Your task to perform on an android device: add a contact in the contacts app Image 0: 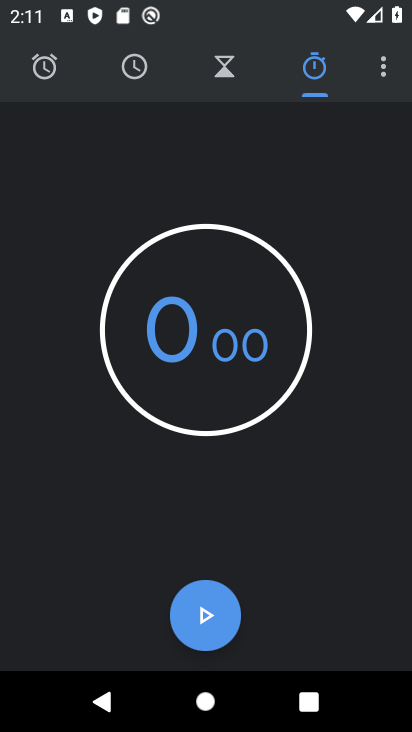
Step 0: press home button
Your task to perform on an android device: add a contact in the contacts app Image 1: 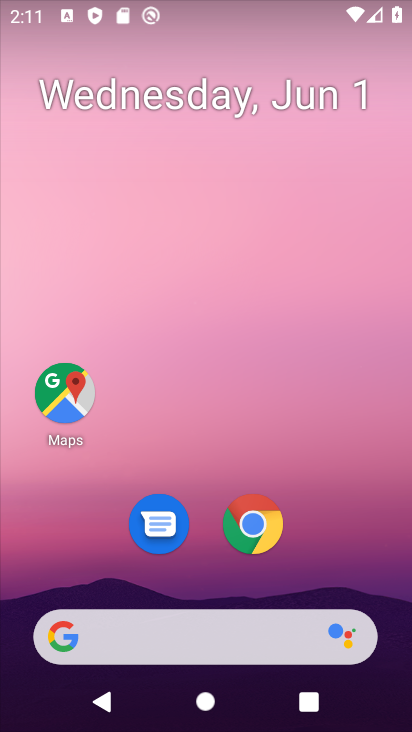
Step 1: drag from (349, 510) to (258, 15)
Your task to perform on an android device: add a contact in the contacts app Image 2: 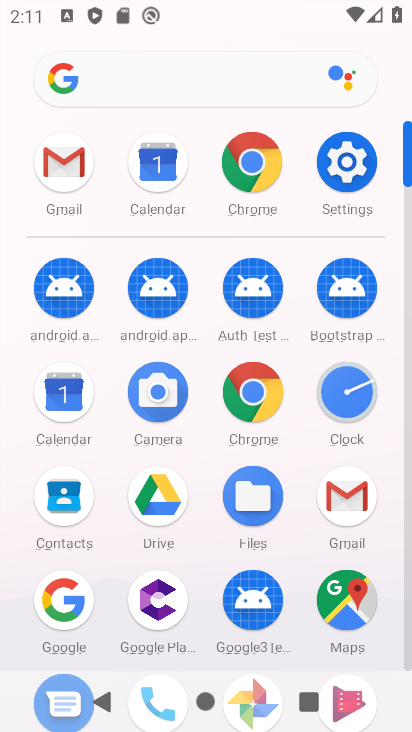
Step 2: click (72, 485)
Your task to perform on an android device: add a contact in the contacts app Image 3: 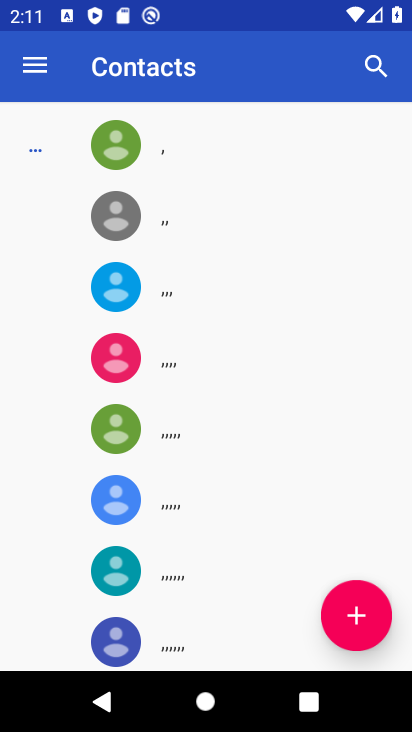
Step 3: click (354, 598)
Your task to perform on an android device: add a contact in the contacts app Image 4: 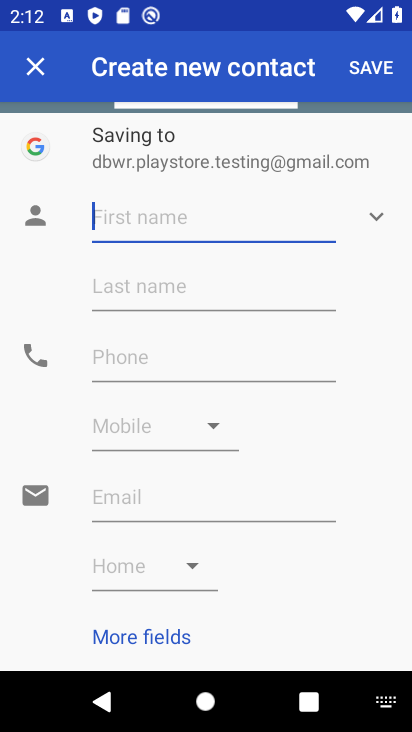
Step 4: type "Shrishti Narayan"
Your task to perform on an android device: add a contact in the contacts app Image 5: 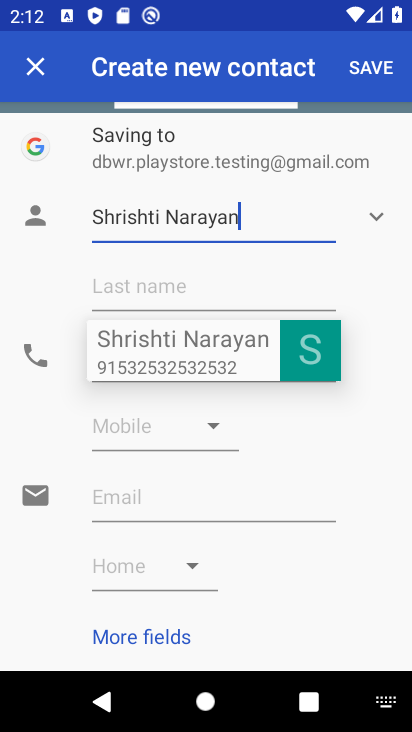
Step 5: click (185, 287)
Your task to perform on an android device: add a contact in the contacts app Image 6: 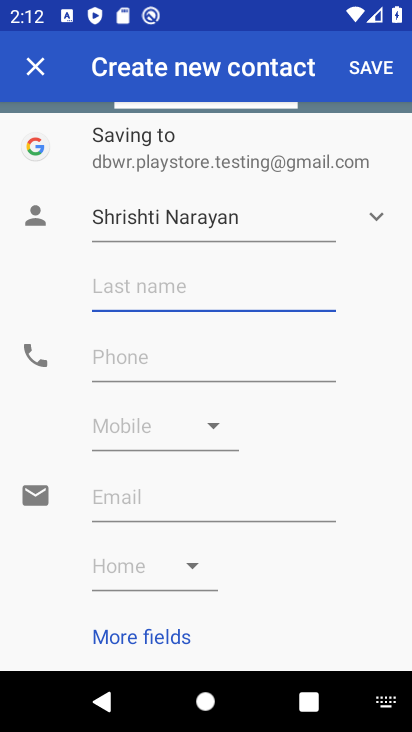
Step 6: type "Dwivedi"
Your task to perform on an android device: add a contact in the contacts app Image 7: 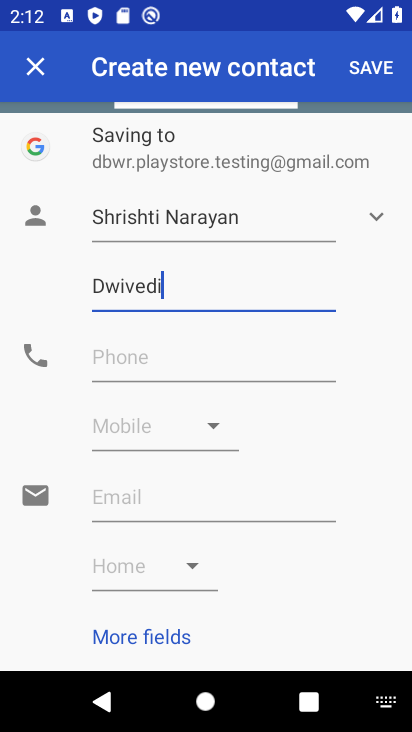
Step 7: click (247, 367)
Your task to perform on an android device: add a contact in the contacts app Image 8: 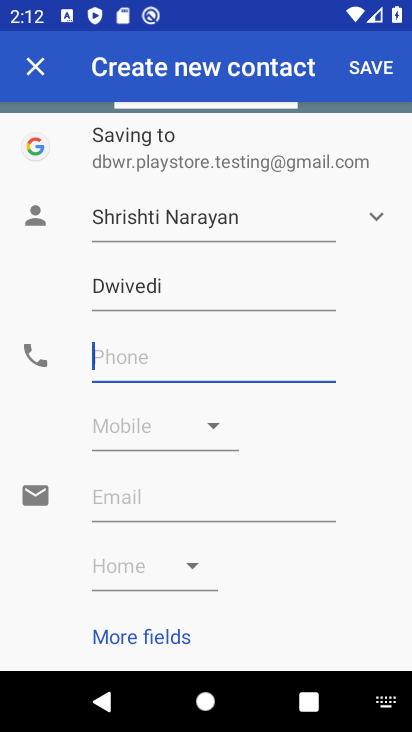
Step 8: type "053233445566"
Your task to perform on an android device: add a contact in the contacts app Image 9: 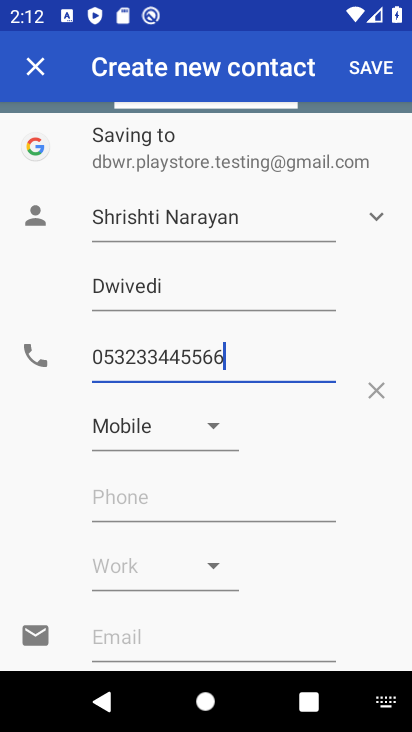
Step 9: click (359, 68)
Your task to perform on an android device: add a contact in the contacts app Image 10: 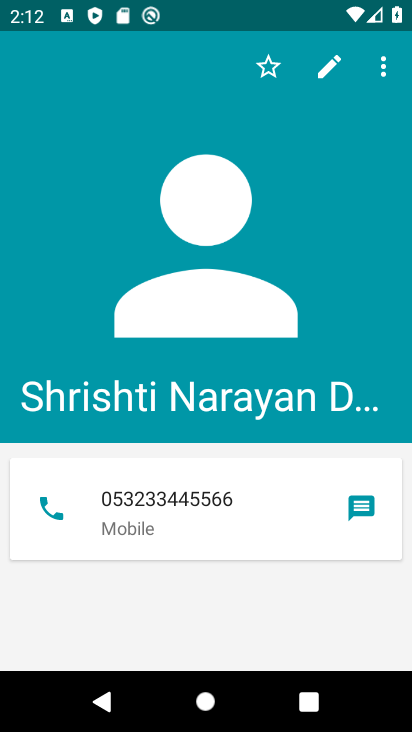
Step 10: task complete